Your task to perform on an android device: Go to location settings Image 0: 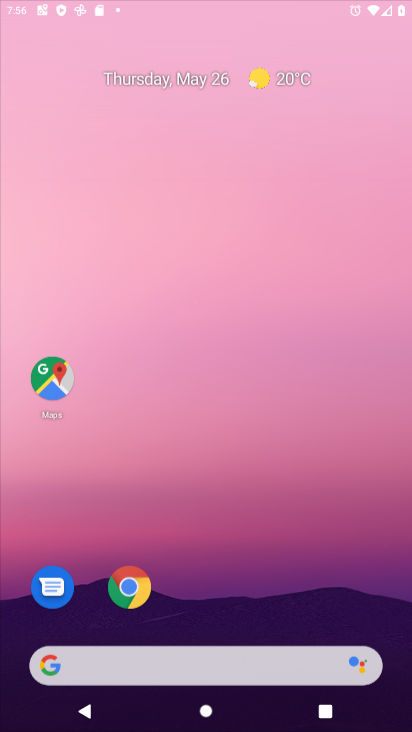
Step 0: drag from (323, 609) to (298, 11)
Your task to perform on an android device: Go to location settings Image 1: 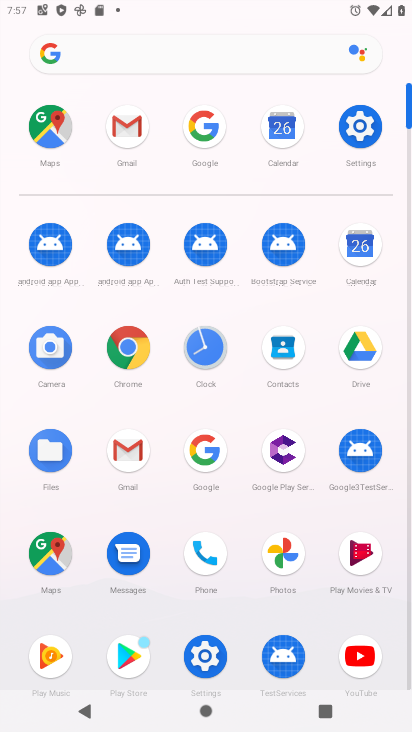
Step 1: click (199, 655)
Your task to perform on an android device: Go to location settings Image 2: 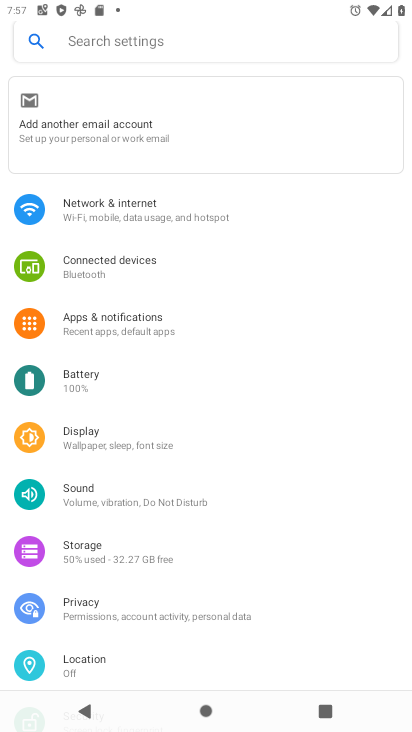
Step 2: click (110, 656)
Your task to perform on an android device: Go to location settings Image 3: 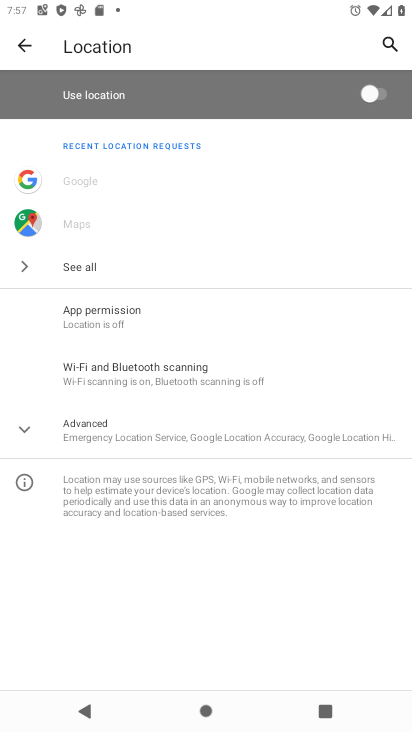
Step 3: task complete